Your task to perform on an android device: Find coffee shops on Maps Image 0: 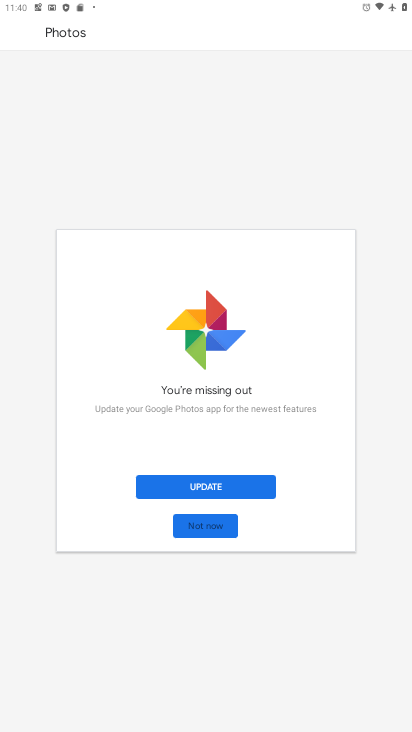
Step 0: press home button
Your task to perform on an android device: Find coffee shops on Maps Image 1: 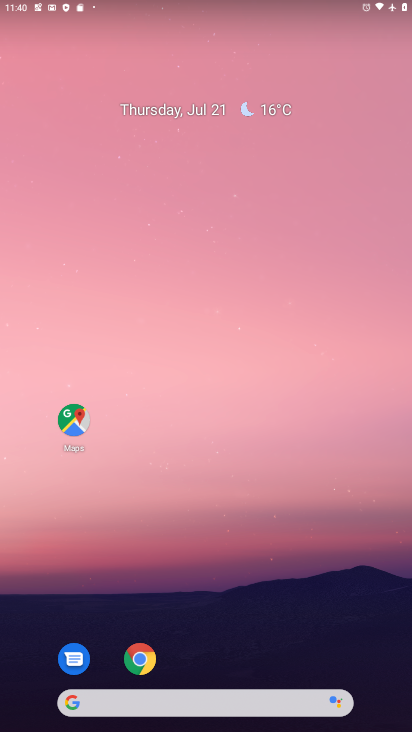
Step 1: click (73, 425)
Your task to perform on an android device: Find coffee shops on Maps Image 2: 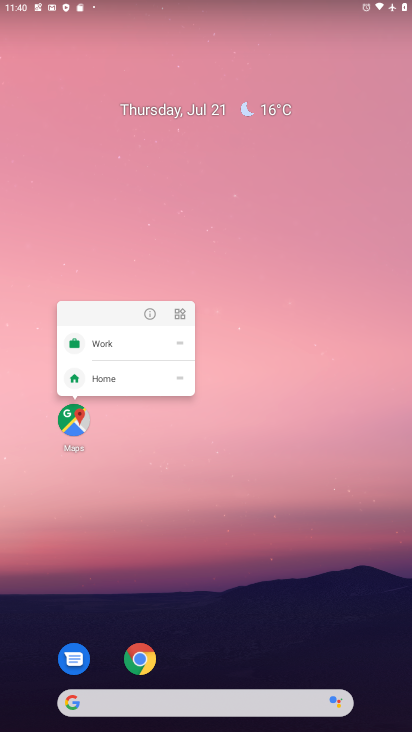
Step 2: click (69, 429)
Your task to perform on an android device: Find coffee shops on Maps Image 3: 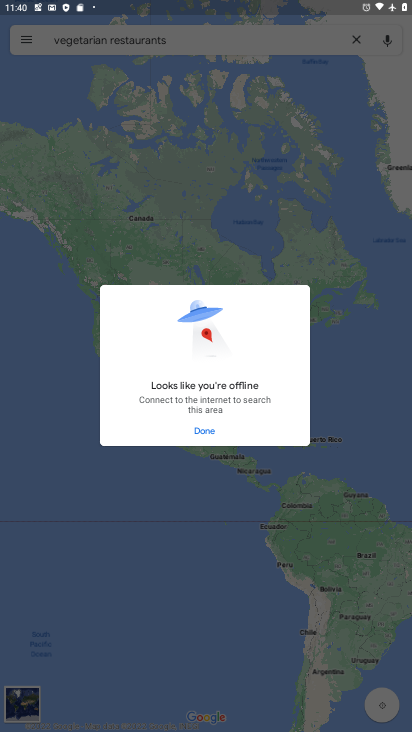
Step 3: task complete